Your task to perform on an android device: see tabs open on other devices in the chrome app Image 0: 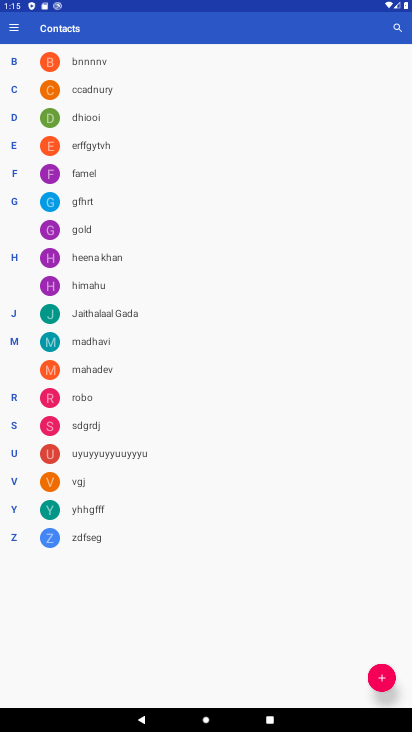
Step 0: press home button
Your task to perform on an android device: see tabs open on other devices in the chrome app Image 1: 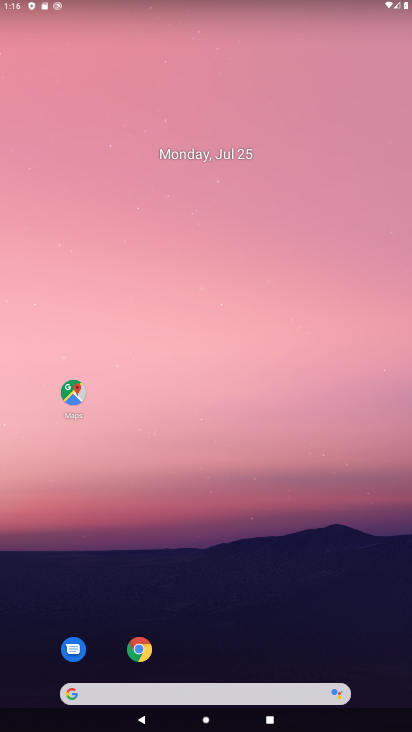
Step 1: click (137, 634)
Your task to perform on an android device: see tabs open on other devices in the chrome app Image 2: 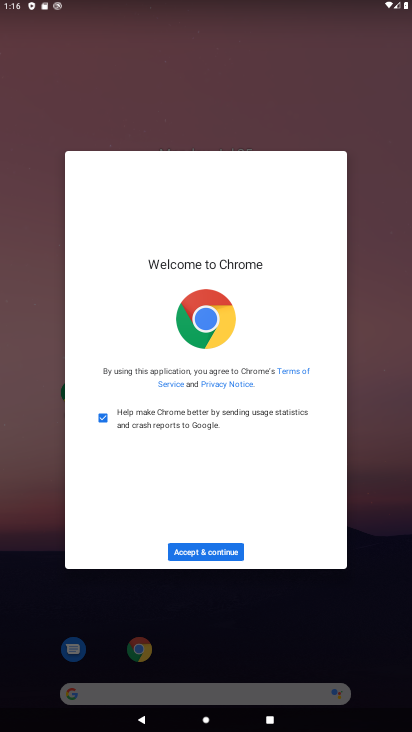
Step 2: click (221, 549)
Your task to perform on an android device: see tabs open on other devices in the chrome app Image 3: 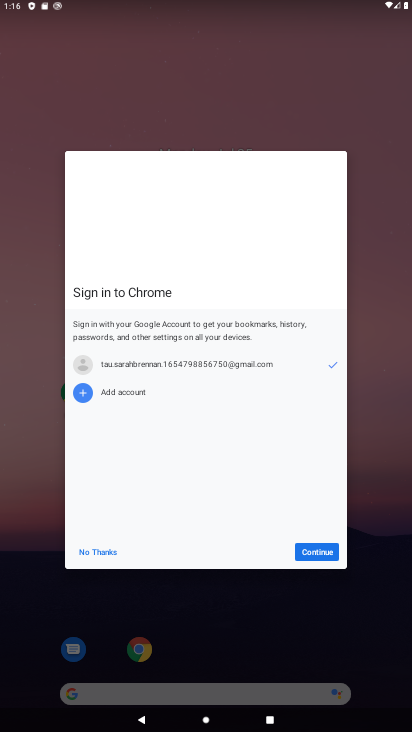
Step 3: click (325, 550)
Your task to perform on an android device: see tabs open on other devices in the chrome app Image 4: 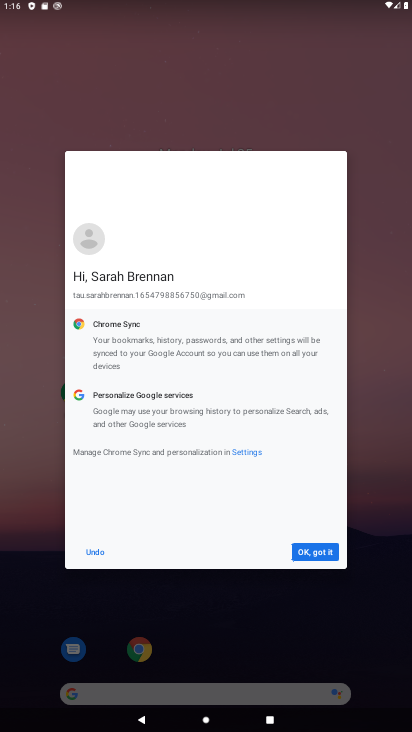
Step 4: click (325, 550)
Your task to perform on an android device: see tabs open on other devices in the chrome app Image 5: 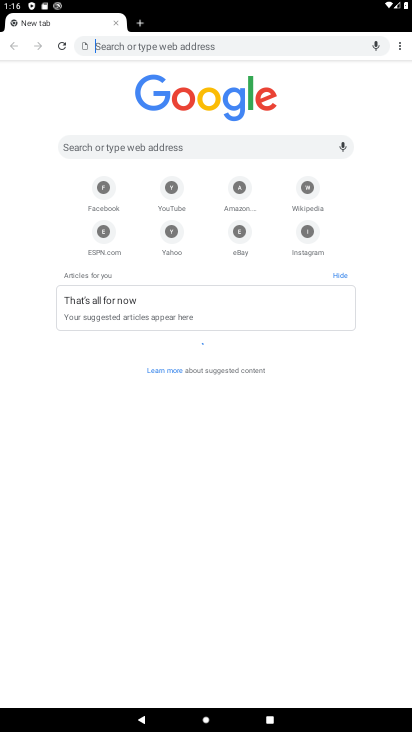
Step 5: click (395, 48)
Your task to perform on an android device: see tabs open on other devices in the chrome app Image 6: 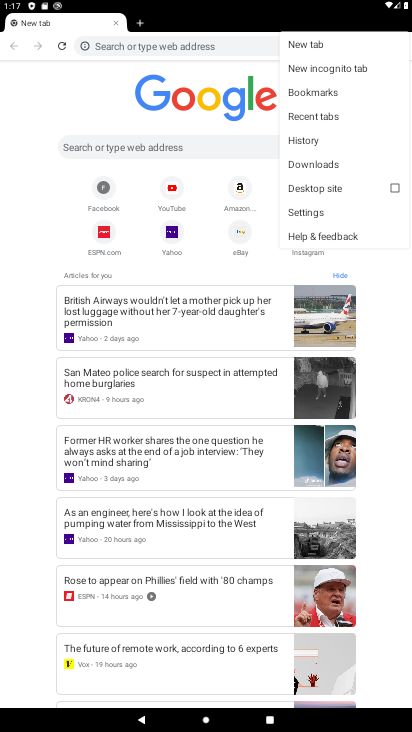
Step 6: click (317, 117)
Your task to perform on an android device: see tabs open on other devices in the chrome app Image 7: 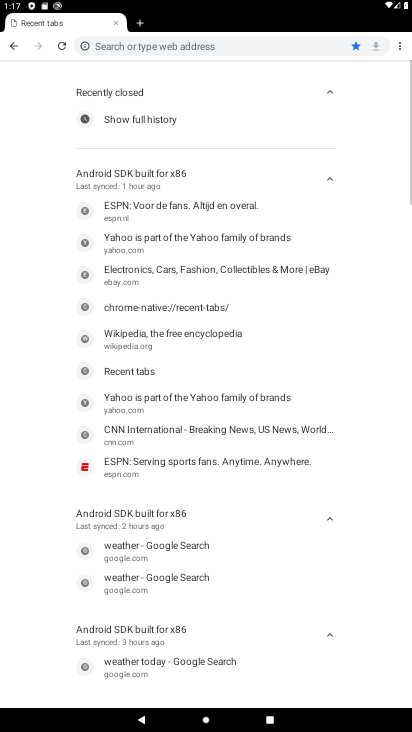
Step 7: task complete